Your task to perform on an android device: Search for the best rated headphones on Amazon. Image 0: 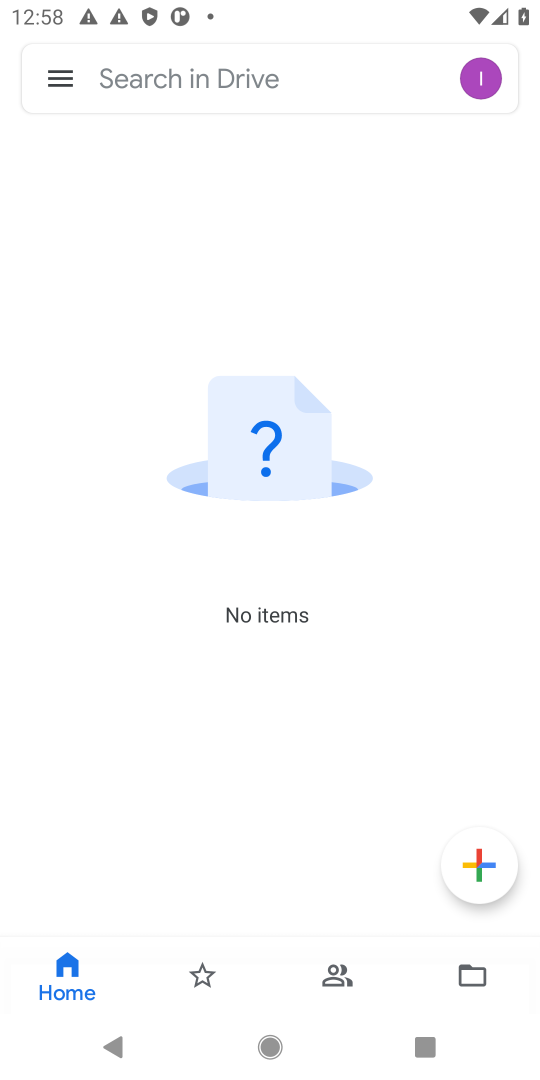
Step 0: press home button
Your task to perform on an android device: Search for the best rated headphones on Amazon. Image 1: 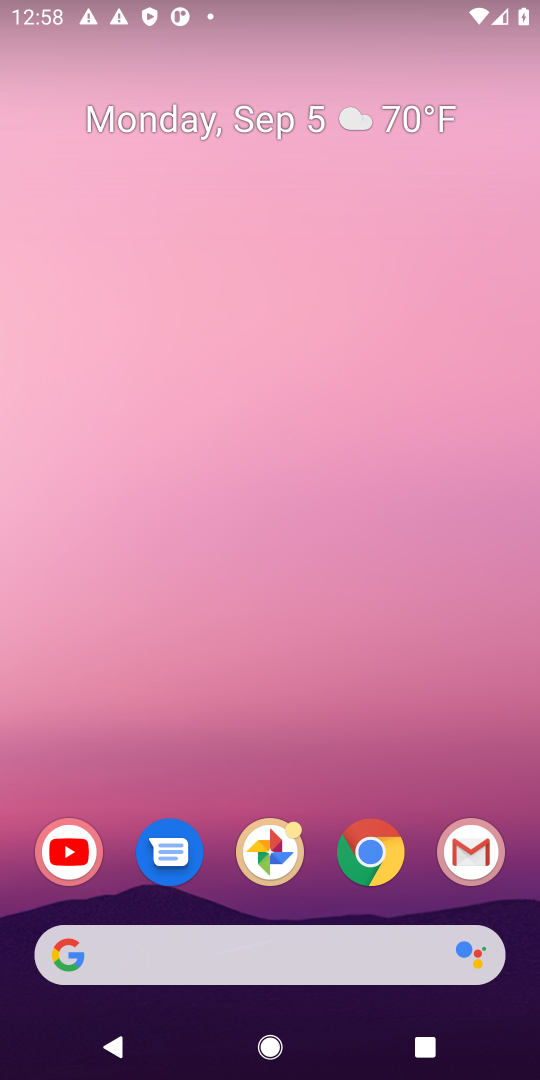
Step 1: click (372, 852)
Your task to perform on an android device: Search for the best rated headphones on Amazon. Image 2: 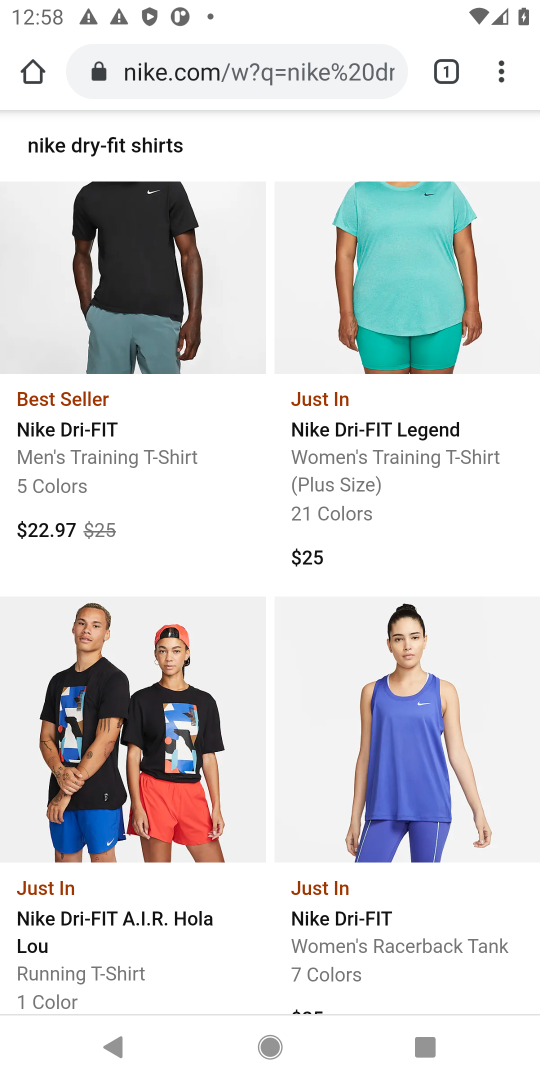
Step 2: click (276, 48)
Your task to perform on an android device: Search for the best rated headphones on Amazon. Image 3: 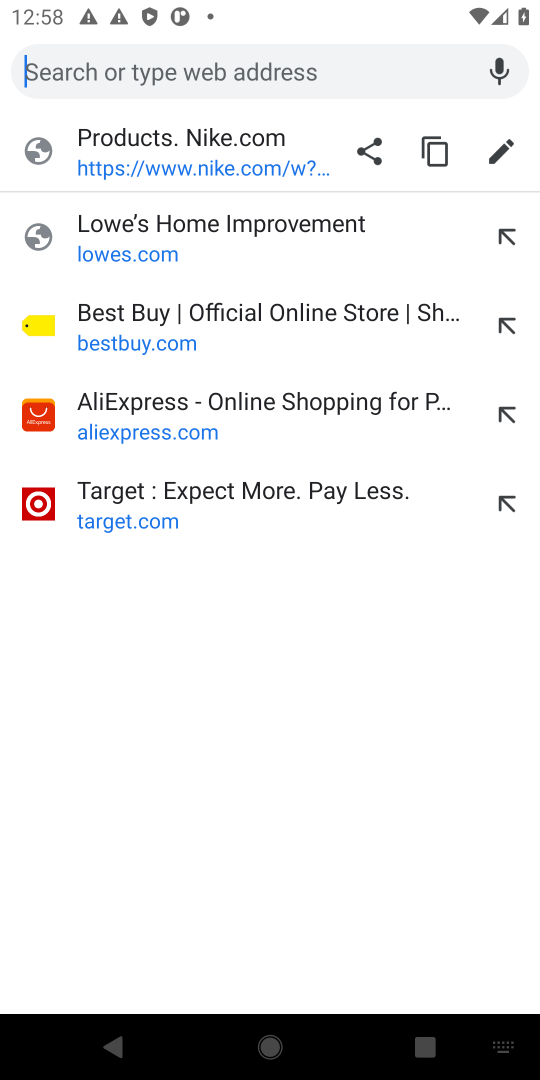
Step 3: type "Amazon"
Your task to perform on an android device: Search for the best rated headphones on Amazon. Image 4: 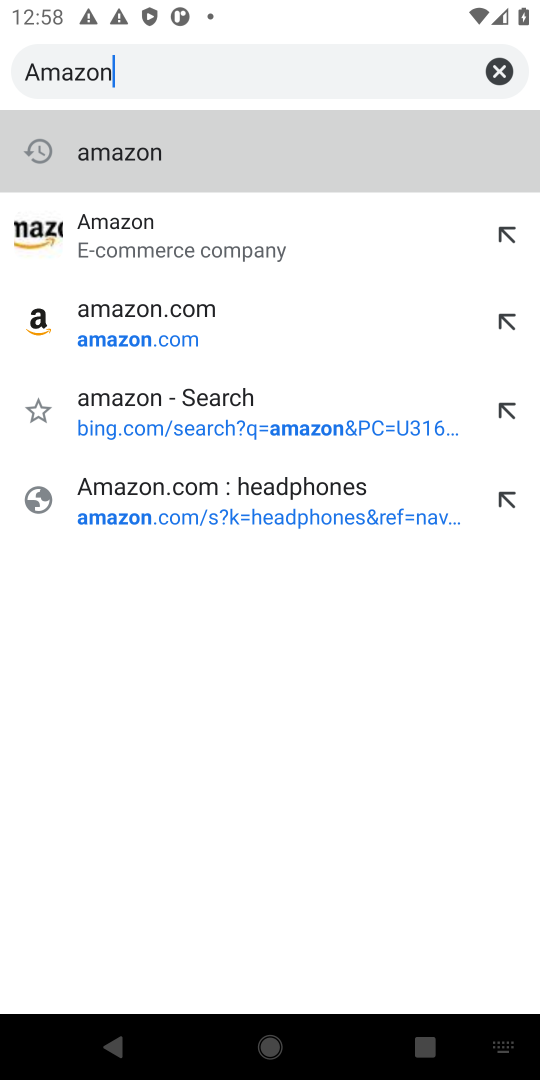
Step 4: click (143, 234)
Your task to perform on an android device: Search for the best rated headphones on Amazon. Image 5: 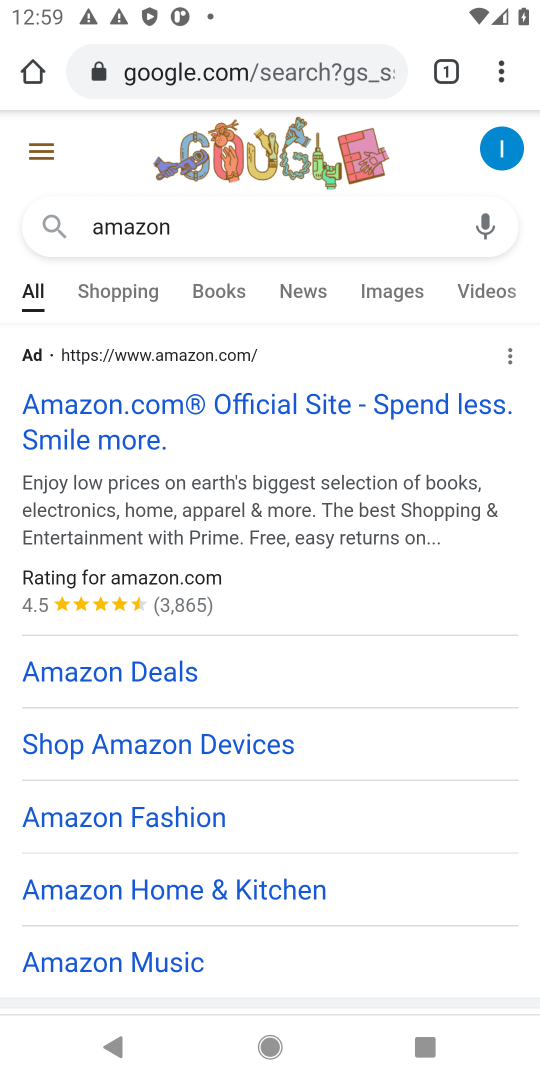
Step 5: click (72, 416)
Your task to perform on an android device: Search for the best rated headphones on Amazon. Image 6: 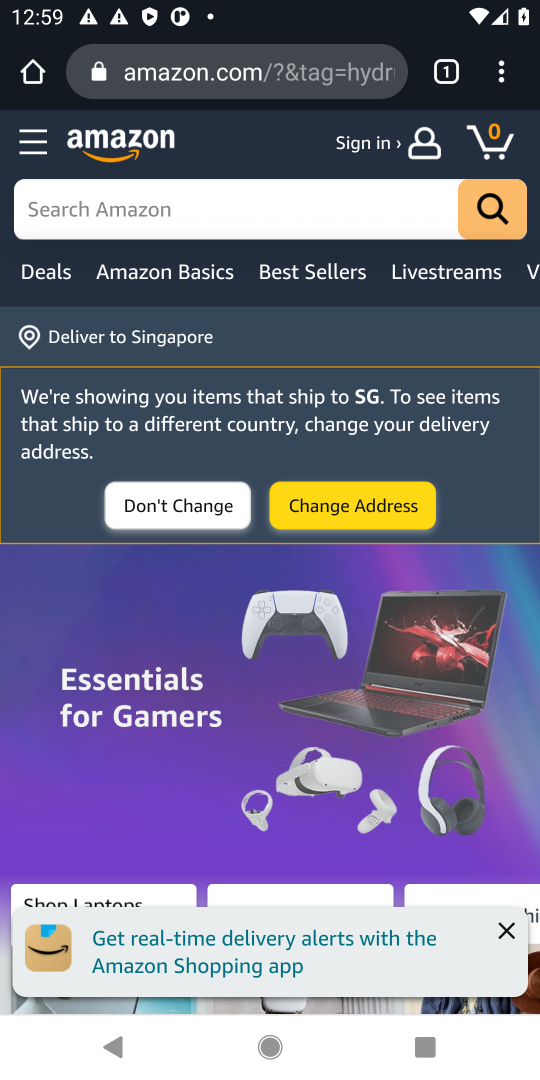
Step 6: click (123, 203)
Your task to perform on an android device: Search for the best rated headphones on Amazon. Image 7: 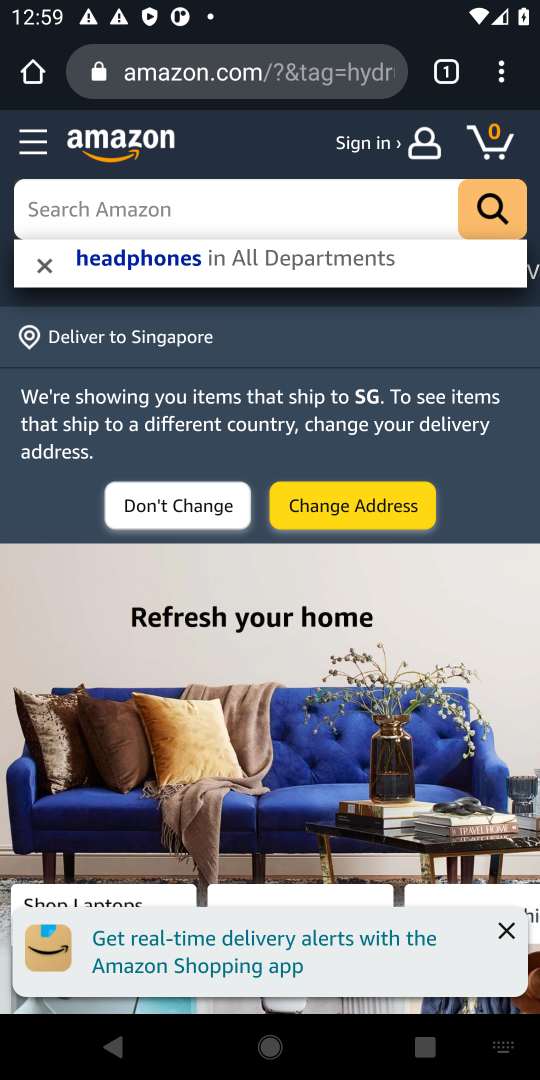
Step 7: click (119, 253)
Your task to perform on an android device: Search for the best rated headphones on Amazon. Image 8: 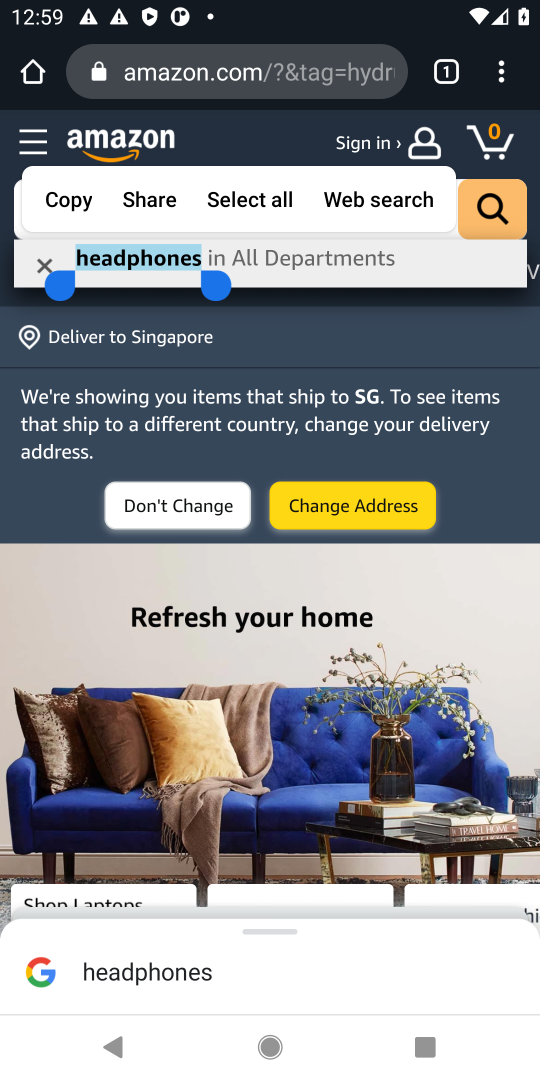
Step 8: click (476, 252)
Your task to perform on an android device: Search for the best rated headphones on Amazon. Image 9: 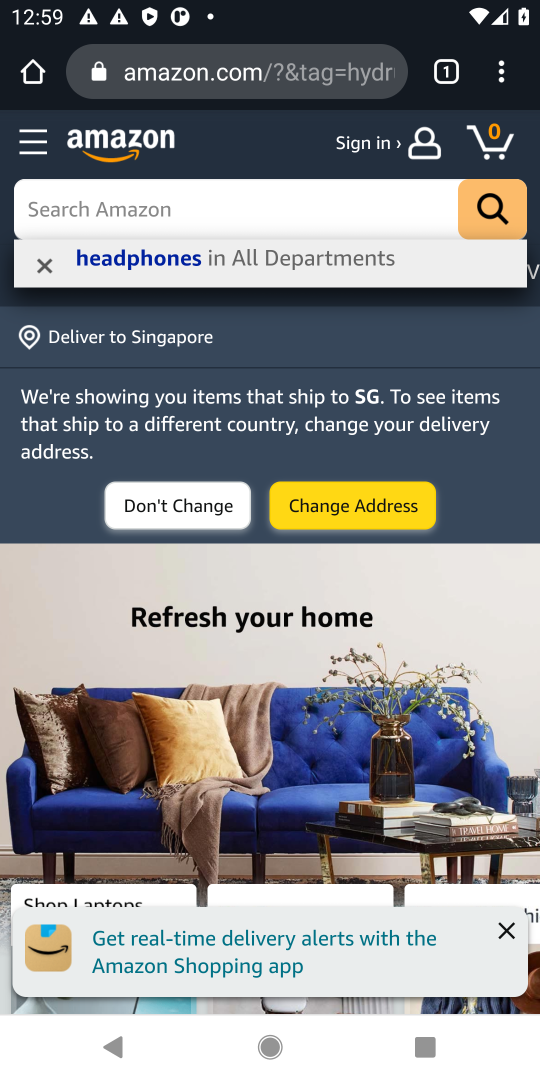
Step 9: click (126, 190)
Your task to perform on an android device: Search for the best rated headphones on Amazon. Image 10: 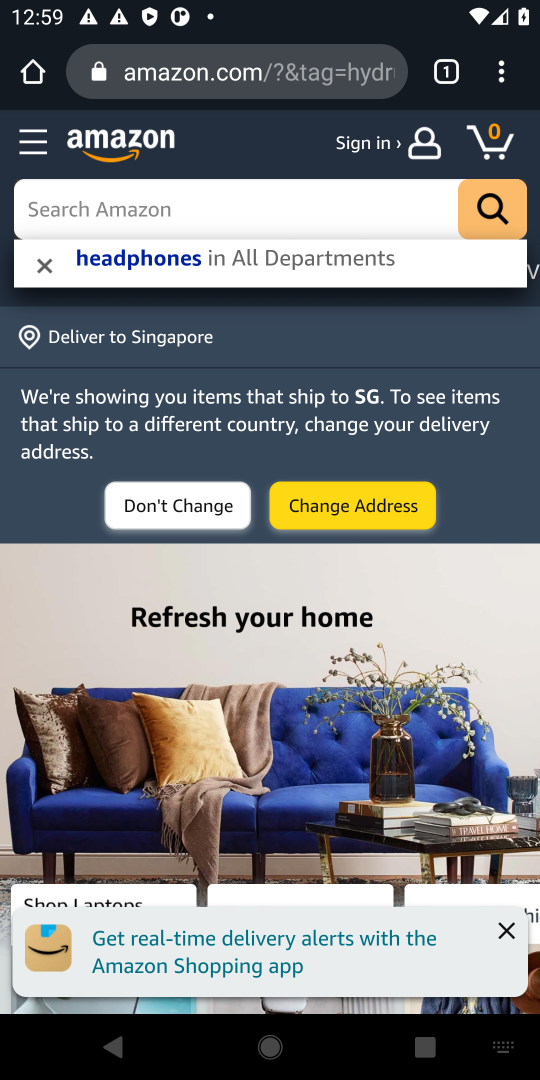
Step 10: click (121, 252)
Your task to perform on an android device: Search for the best rated headphones on Amazon. Image 11: 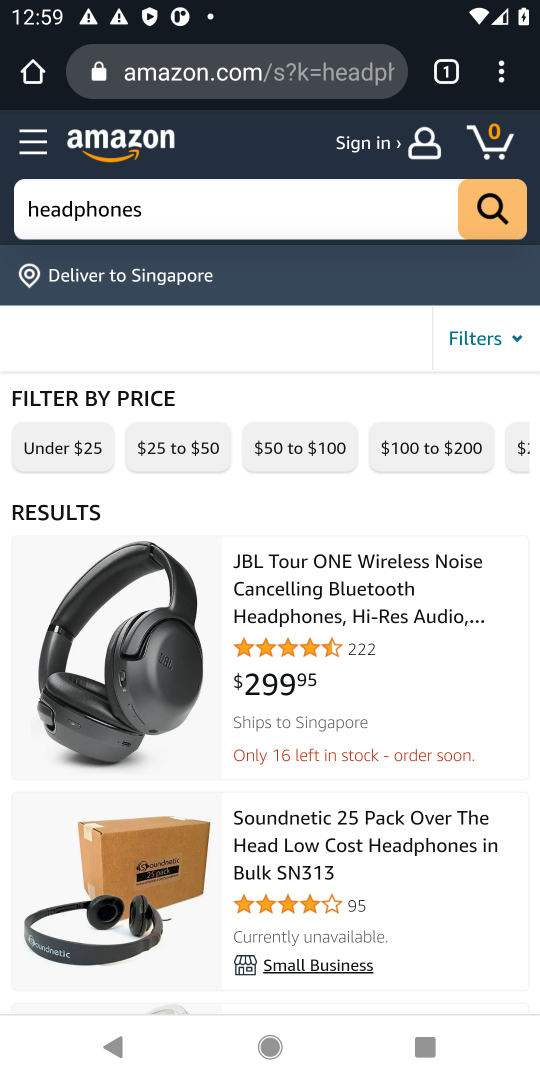
Step 11: drag from (231, 472) to (220, 255)
Your task to perform on an android device: Search for the best rated headphones on Amazon. Image 12: 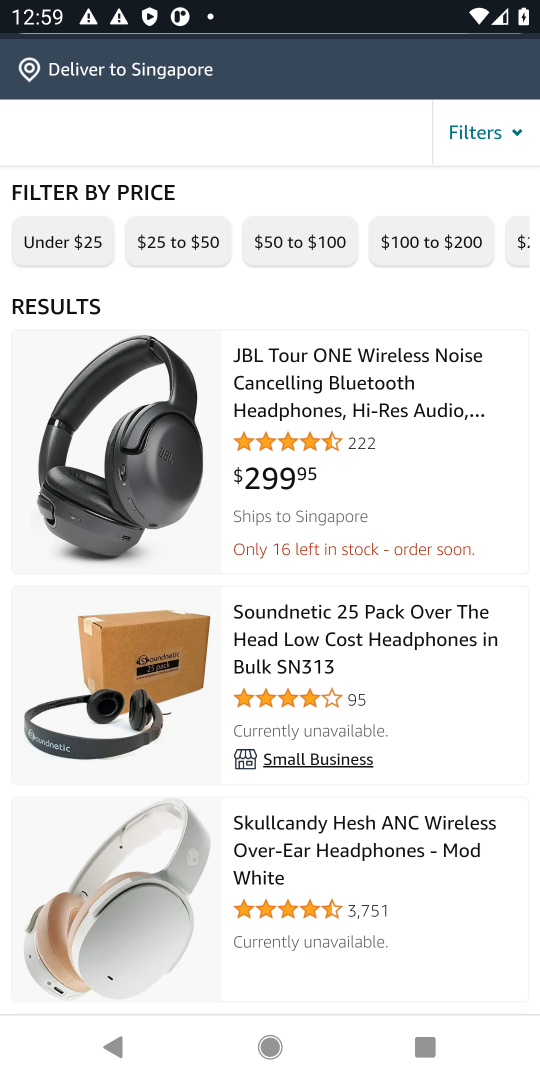
Step 12: drag from (217, 764) to (230, 418)
Your task to perform on an android device: Search for the best rated headphones on Amazon. Image 13: 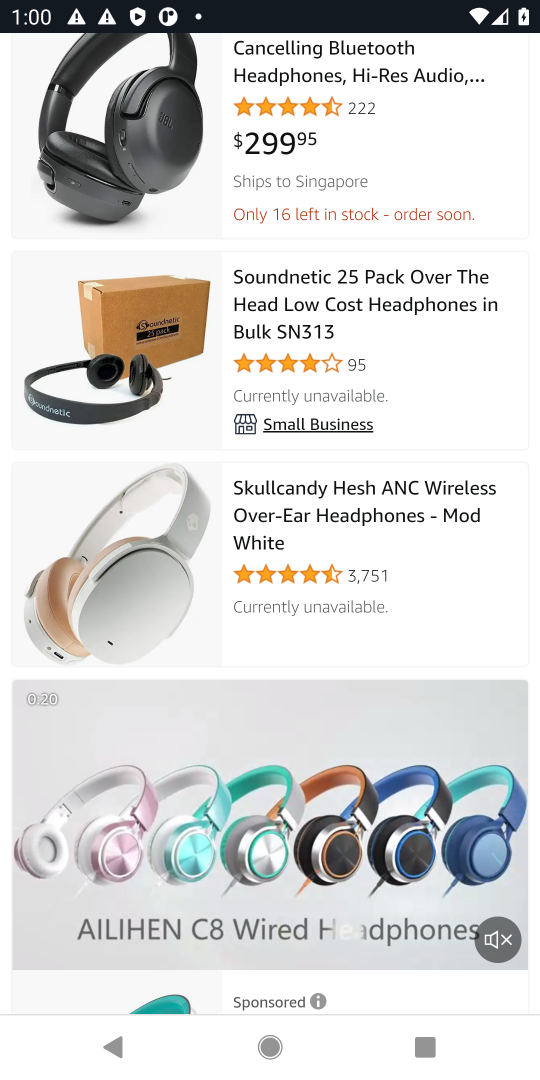
Step 13: drag from (248, 713) to (215, 377)
Your task to perform on an android device: Search for the best rated headphones on Amazon. Image 14: 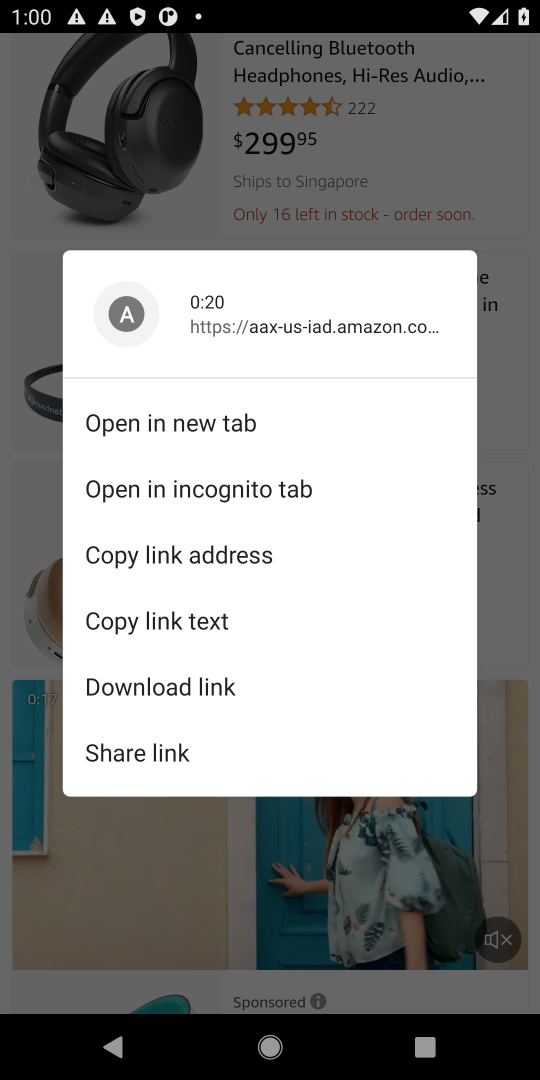
Step 14: click (498, 872)
Your task to perform on an android device: Search for the best rated headphones on Amazon. Image 15: 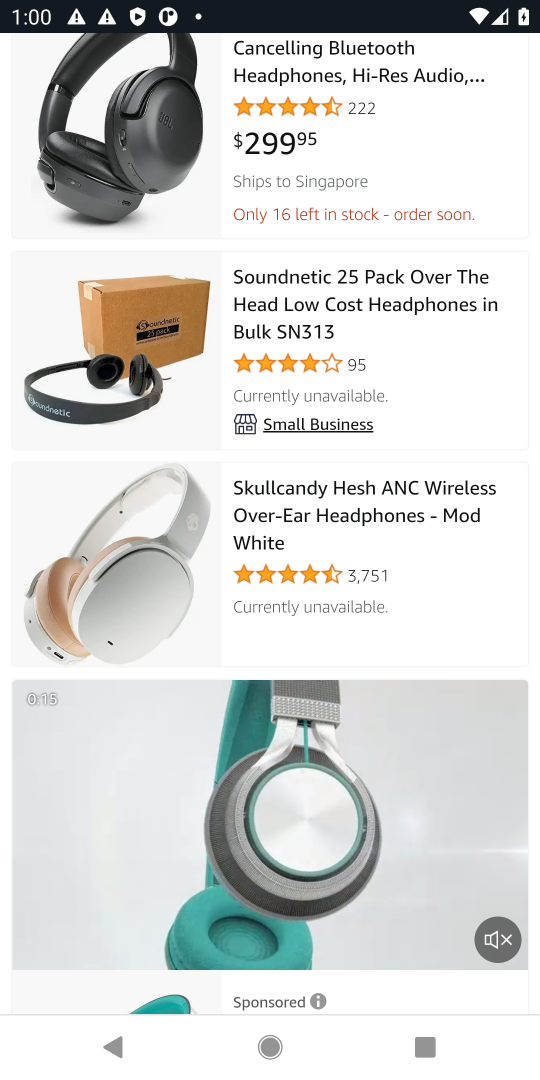
Step 15: task complete